Your task to perform on an android device: Go to CNN.com Image 0: 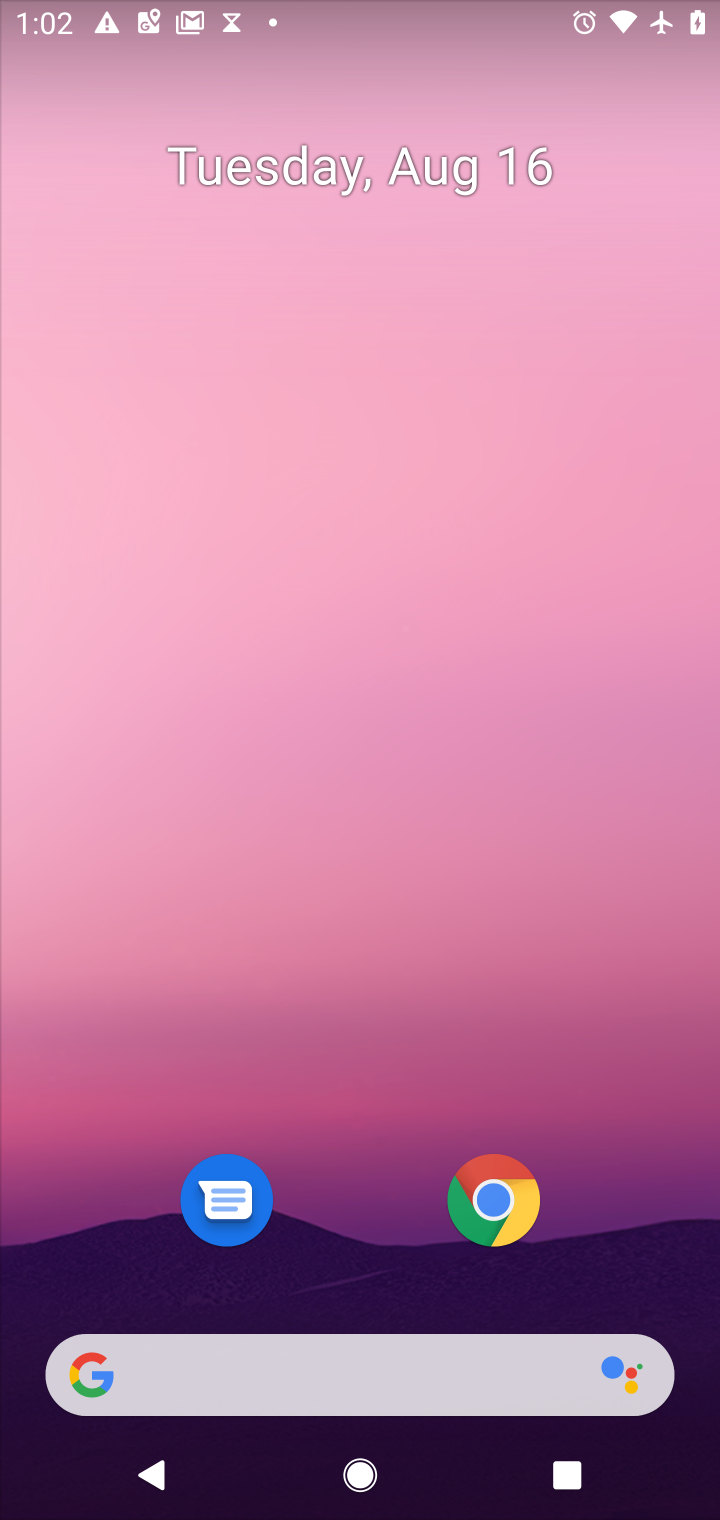
Step 0: click (466, 1204)
Your task to perform on an android device: Go to CNN.com Image 1: 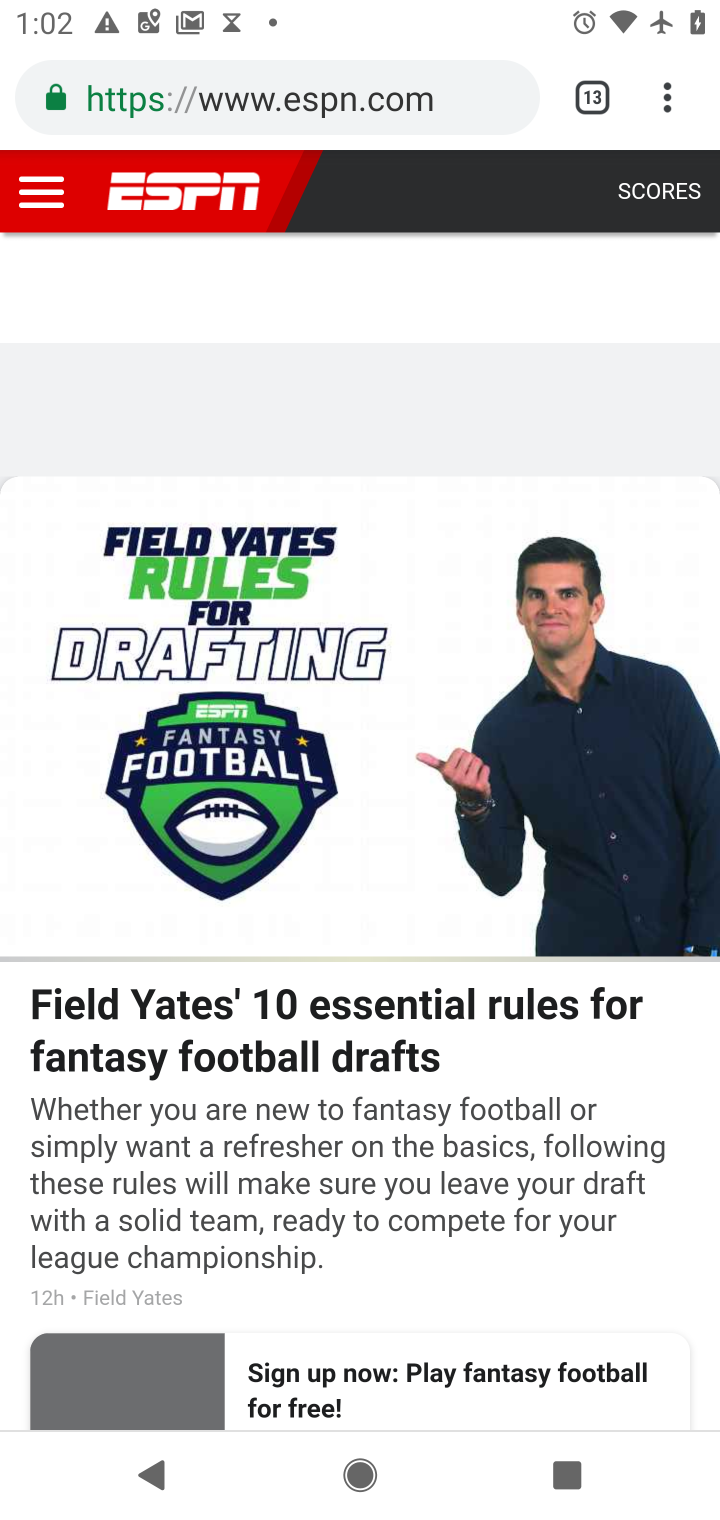
Step 1: click (604, 97)
Your task to perform on an android device: Go to CNN.com Image 2: 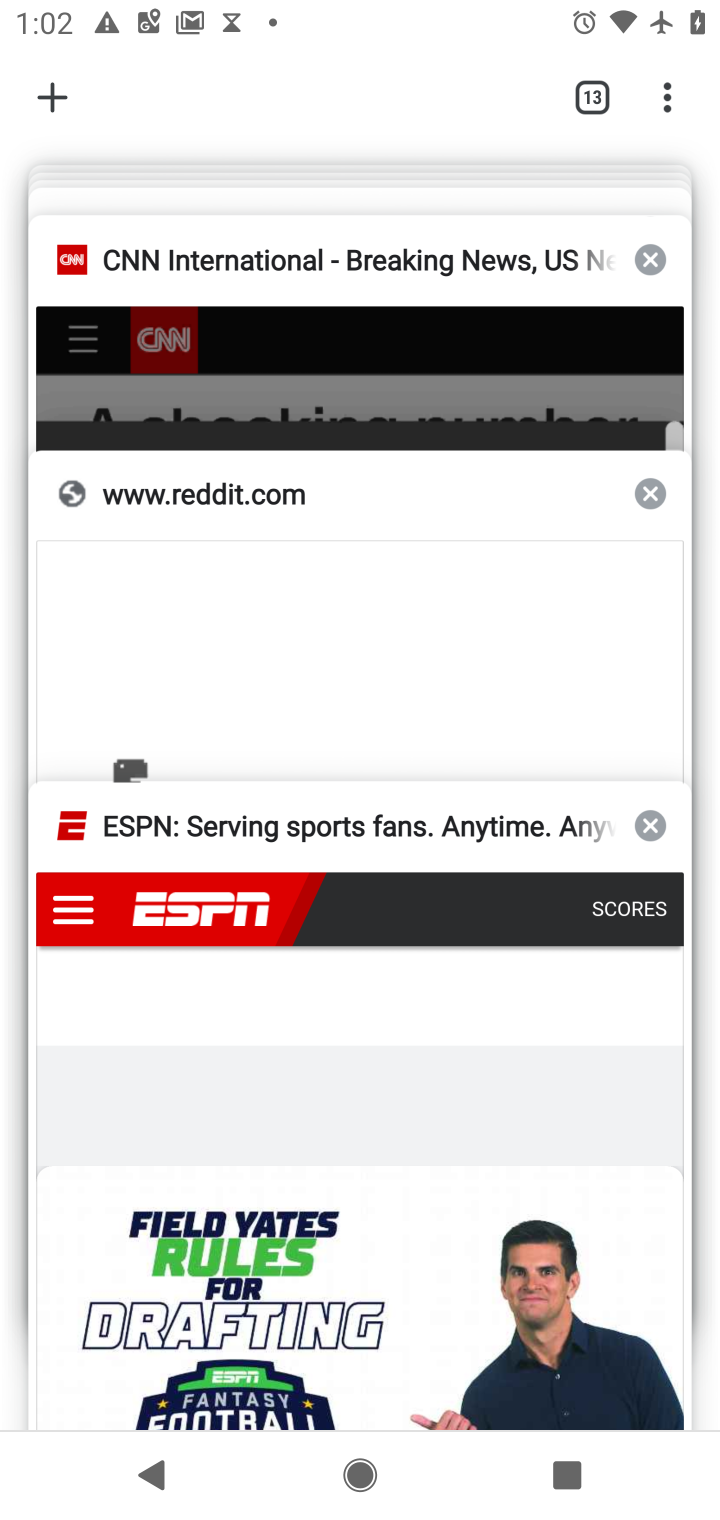
Step 2: click (61, 95)
Your task to perform on an android device: Go to CNN.com Image 3: 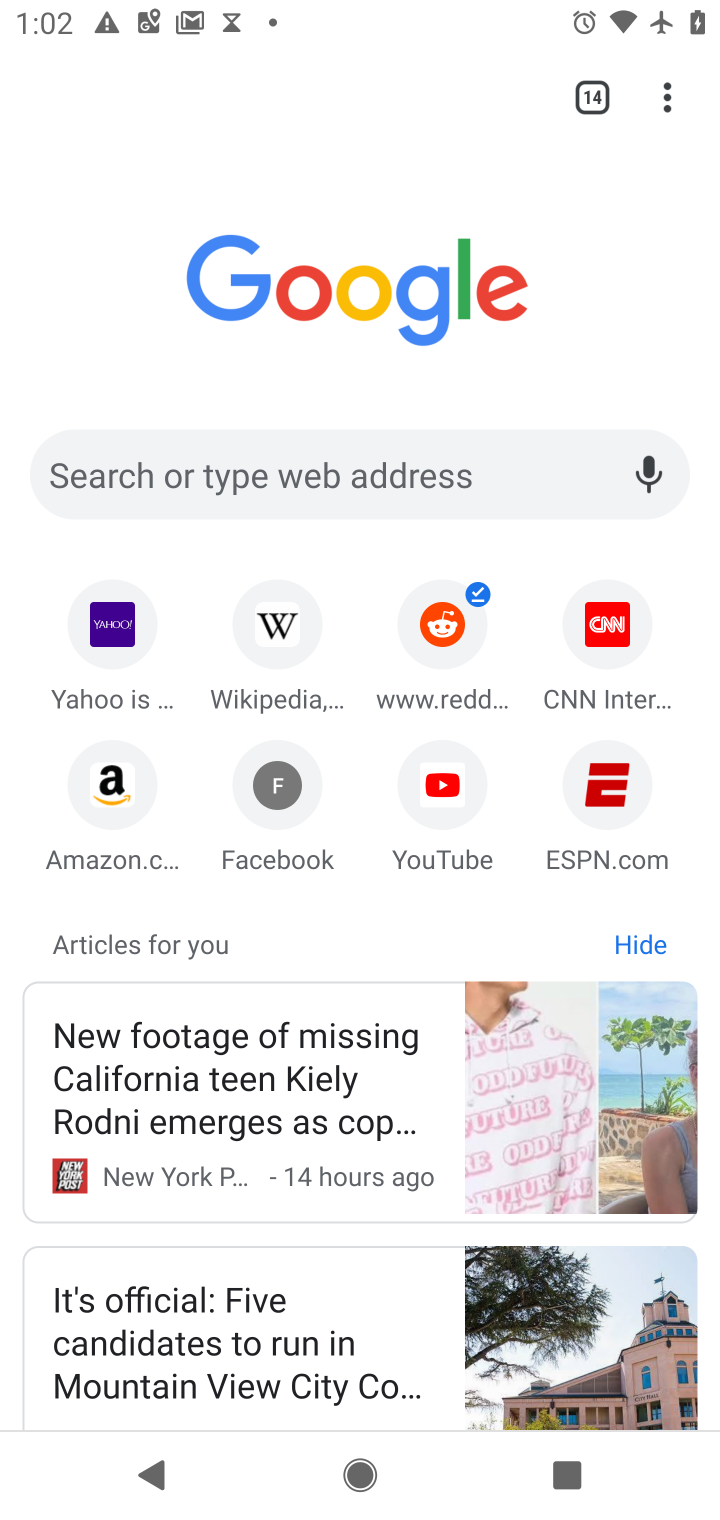
Step 3: click (216, 467)
Your task to perform on an android device: Go to CNN.com Image 4: 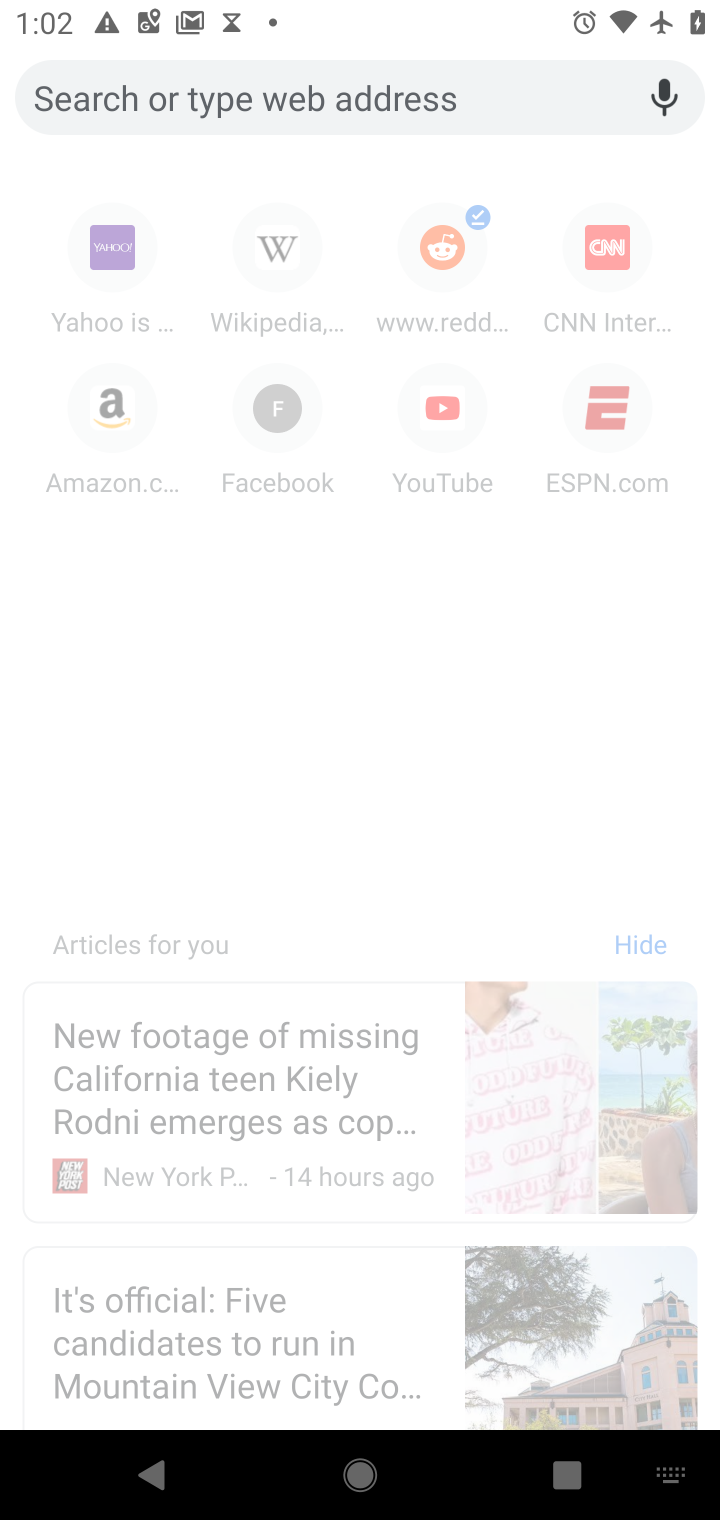
Step 4: type "CNN.com"
Your task to perform on an android device: Go to CNN.com Image 5: 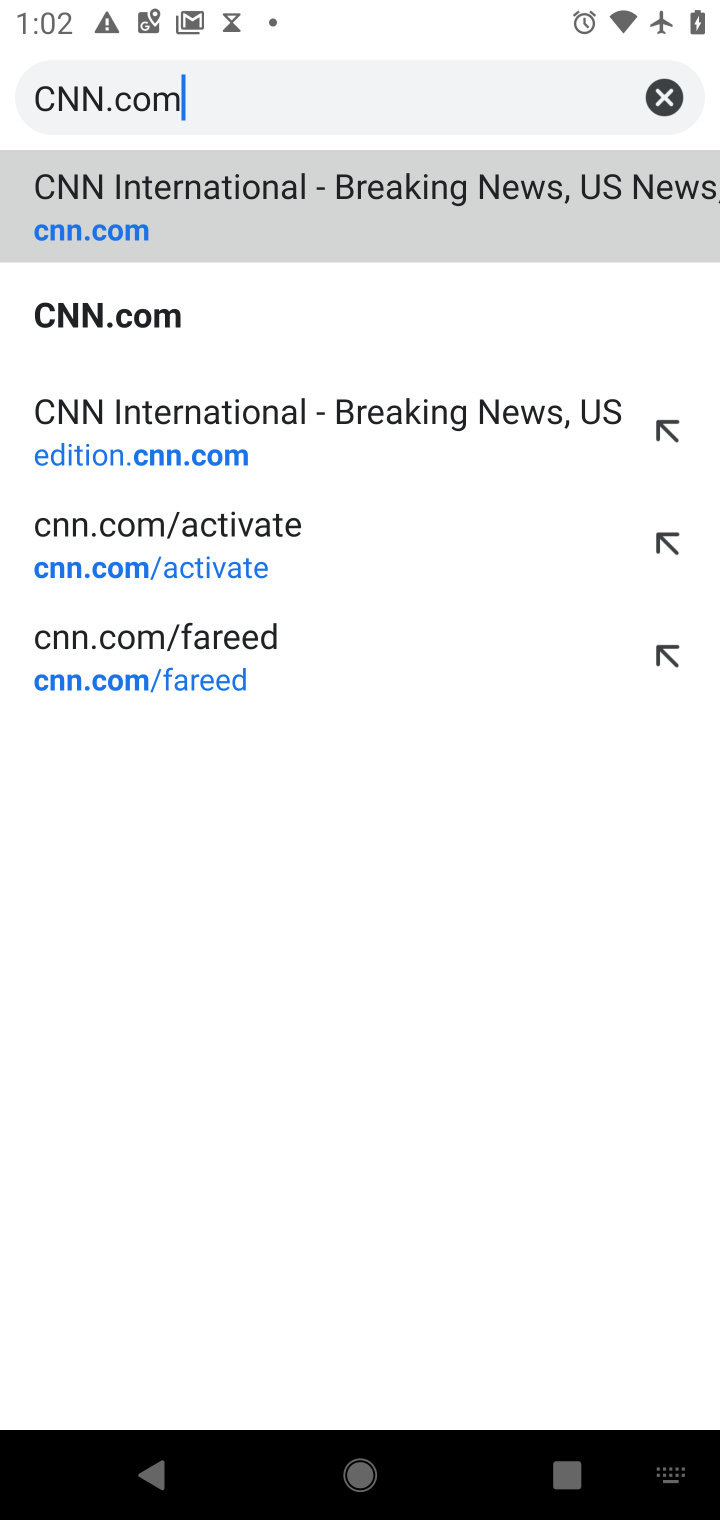
Step 5: type ""
Your task to perform on an android device: Go to CNN.com Image 6: 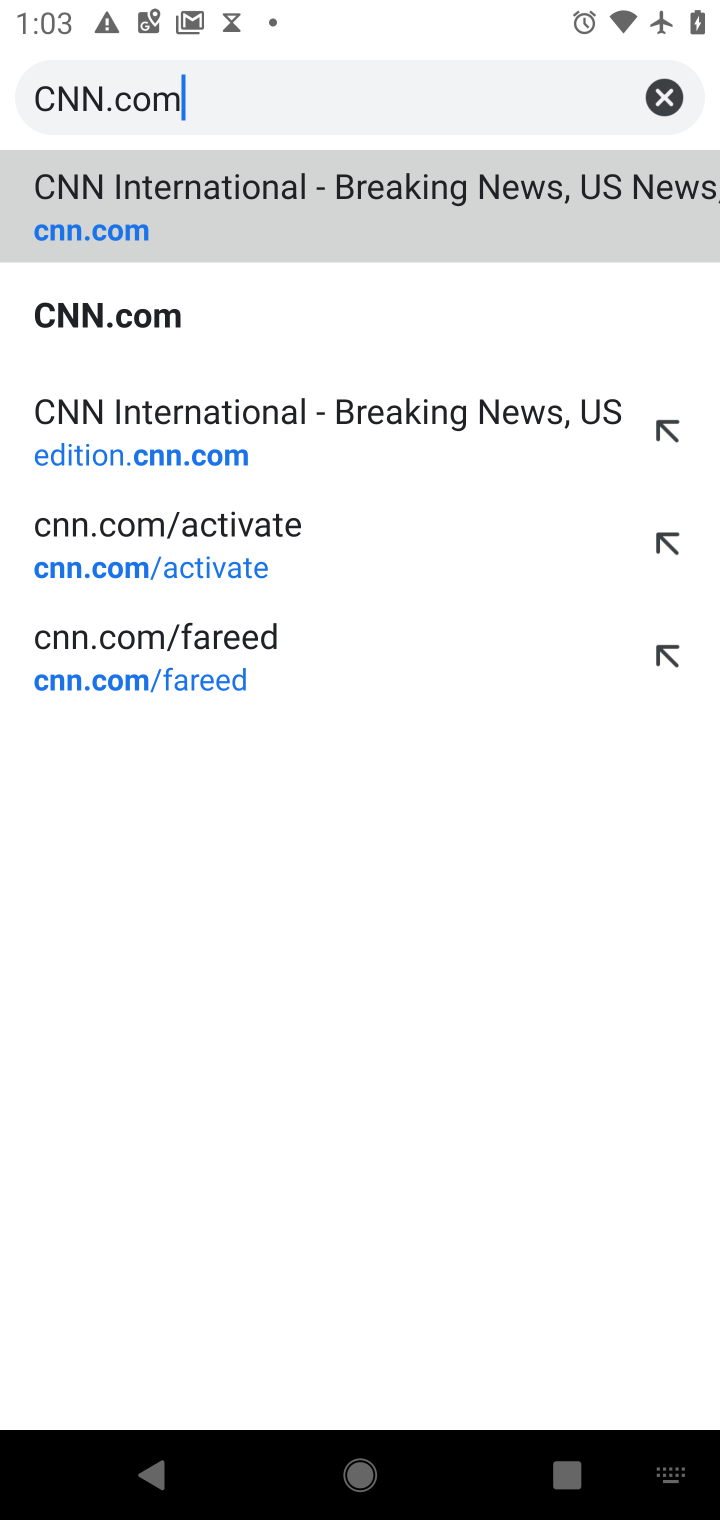
Step 6: click (316, 223)
Your task to perform on an android device: Go to CNN.com Image 7: 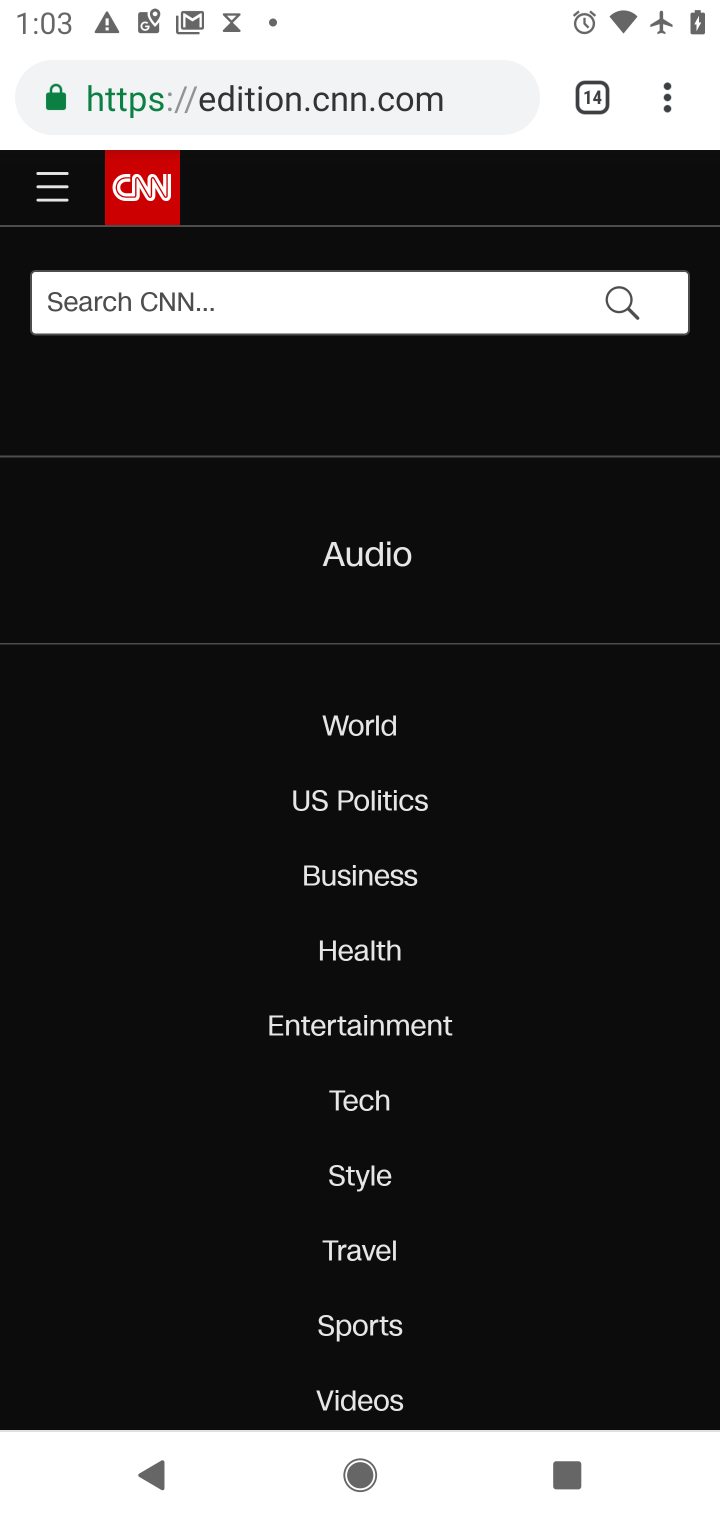
Step 7: task complete